Your task to perform on an android device: see sites visited before in the chrome app Image 0: 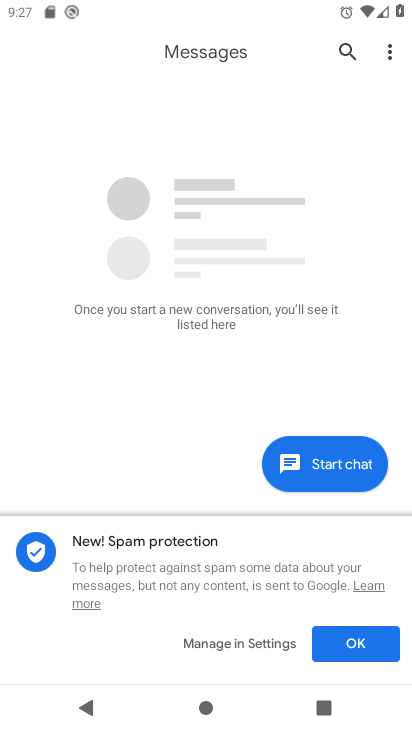
Step 0: press home button
Your task to perform on an android device: see sites visited before in the chrome app Image 1: 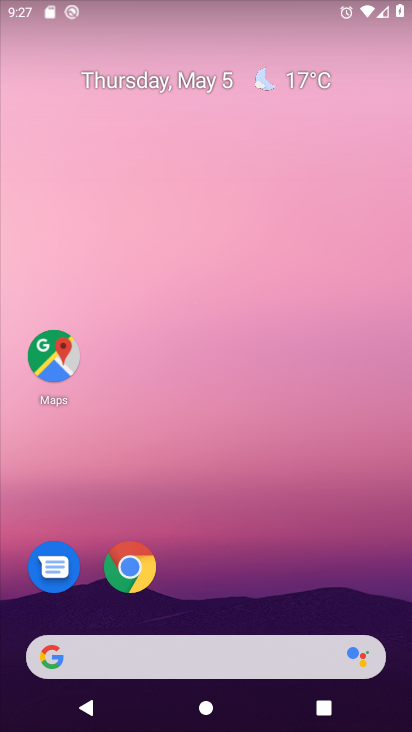
Step 1: drag from (229, 576) to (232, 42)
Your task to perform on an android device: see sites visited before in the chrome app Image 2: 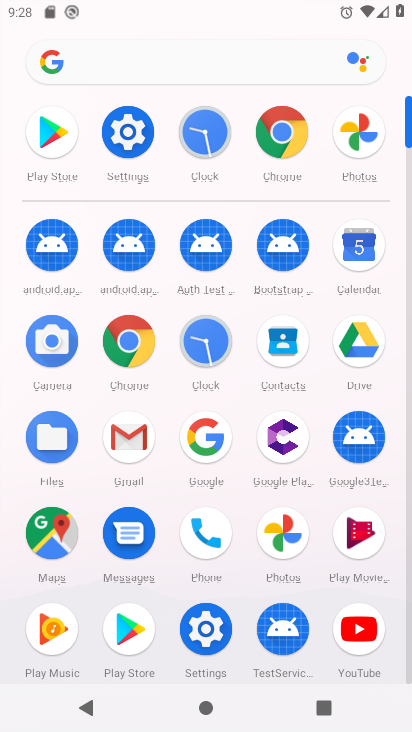
Step 2: click (281, 131)
Your task to perform on an android device: see sites visited before in the chrome app Image 3: 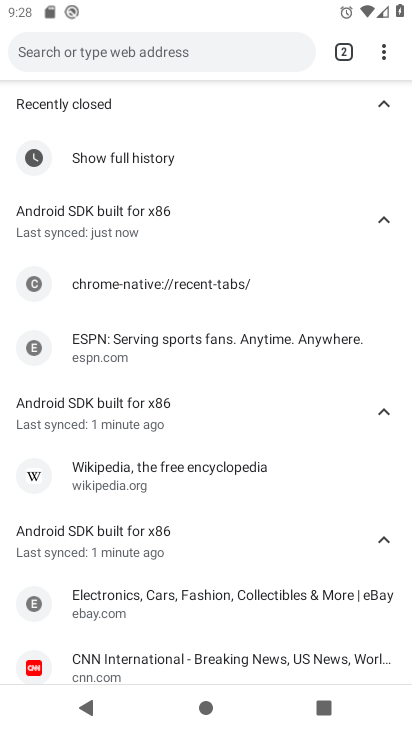
Step 3: task complete